Your task to perform on an android device: uninstall "Facebook" Image 0: 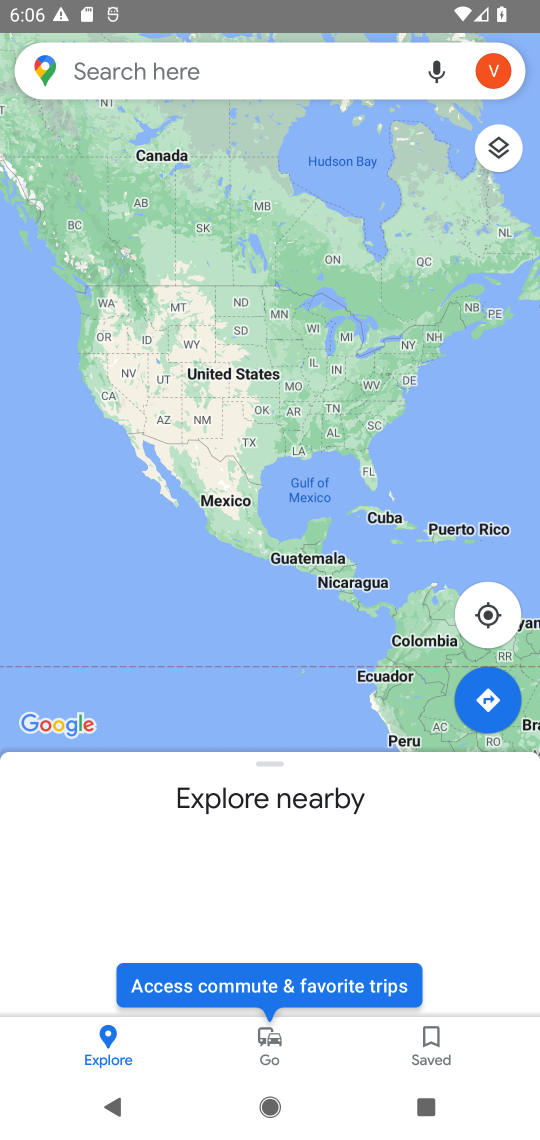
Step 0: press home button
Your task to perform on an android device: uninstall "Facebook" Image 1: 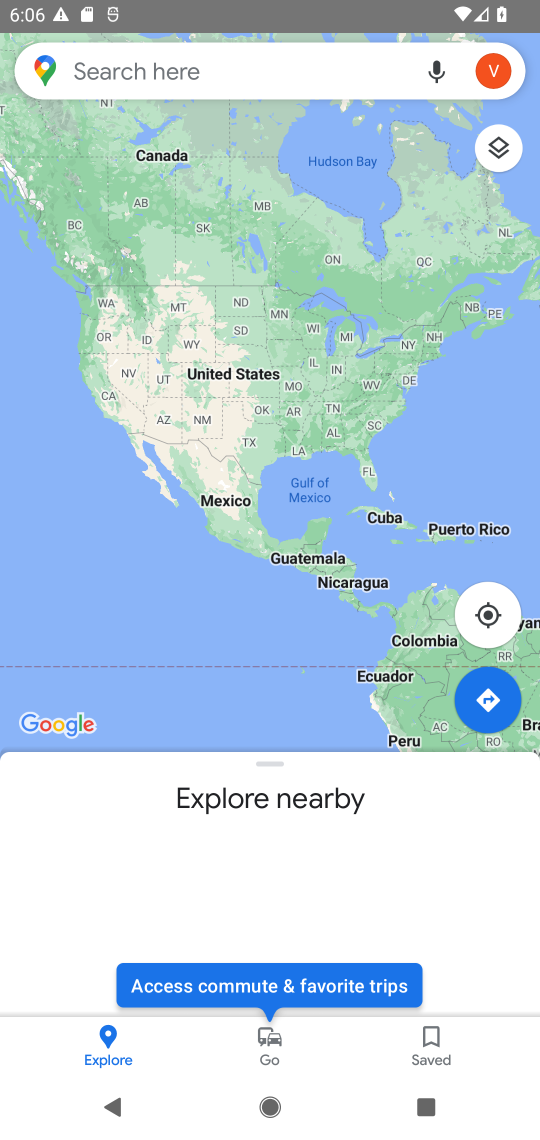
Step 1: press home button
Your task to perform on an android device: uninstall "Facebook" Image 2: 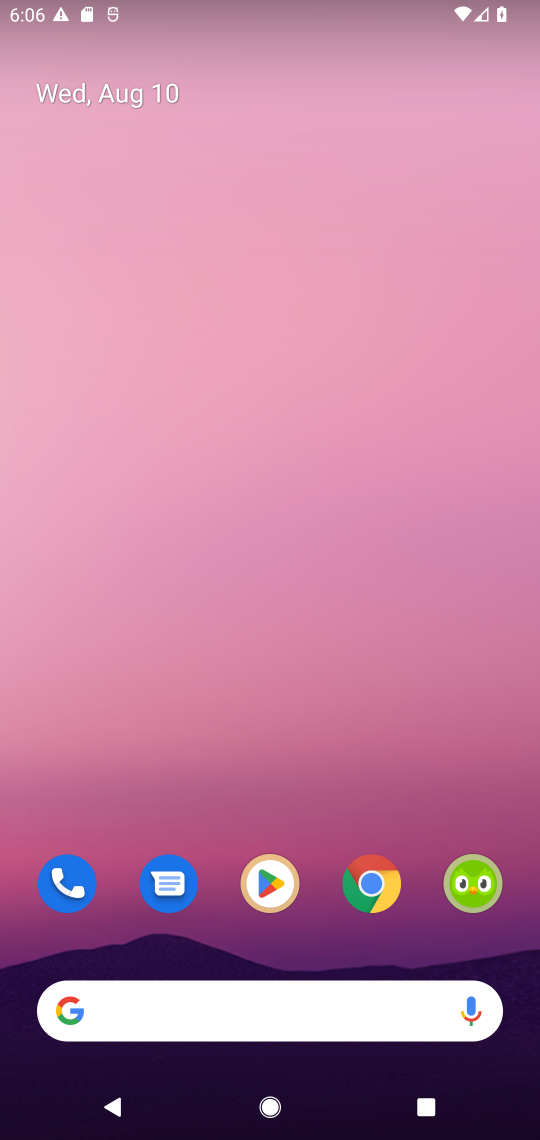
Step 2: drag from (330, 875) to (305, 168)
Your task to perform on an android device: uninstall "Facebook" Image 3: 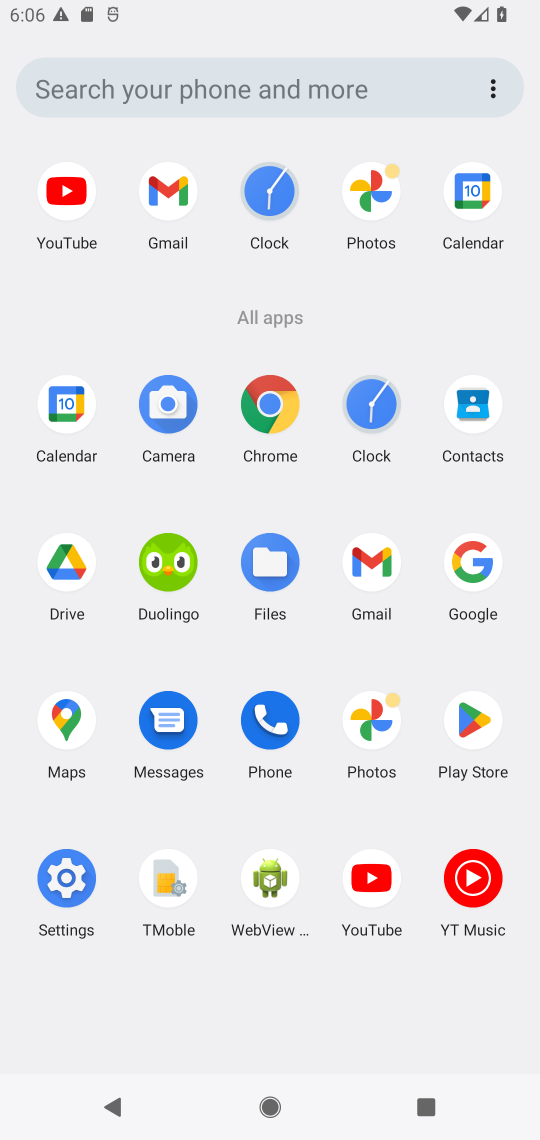
Step 3: click (478, 718)
Your task to perform on an android device: uninstall "Facebook" Image 4: 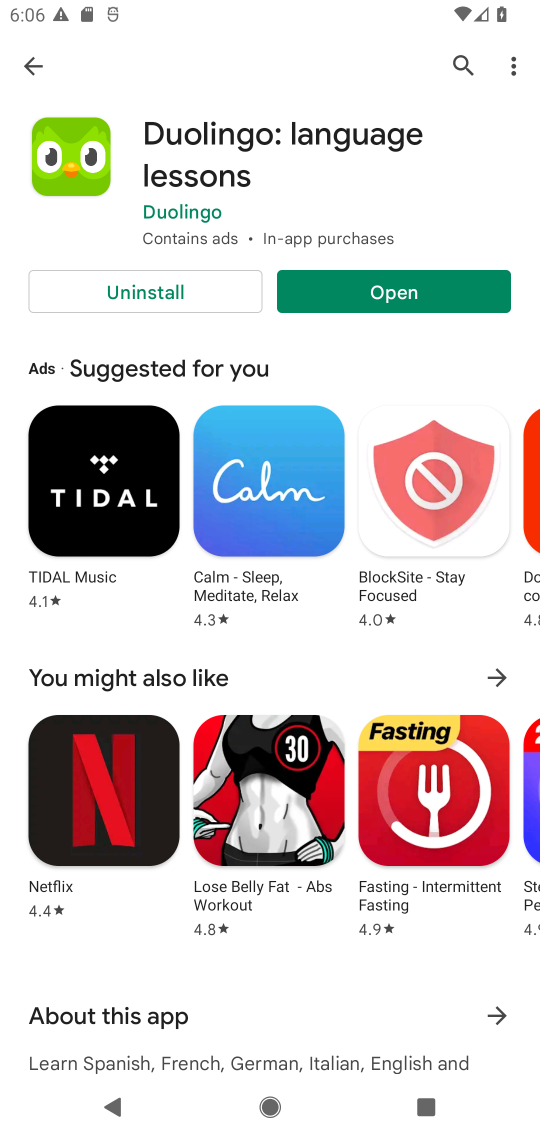
Step 4: click (461, 57)
Your task to perform on an android device: uninstall "Facebook" Image 5: 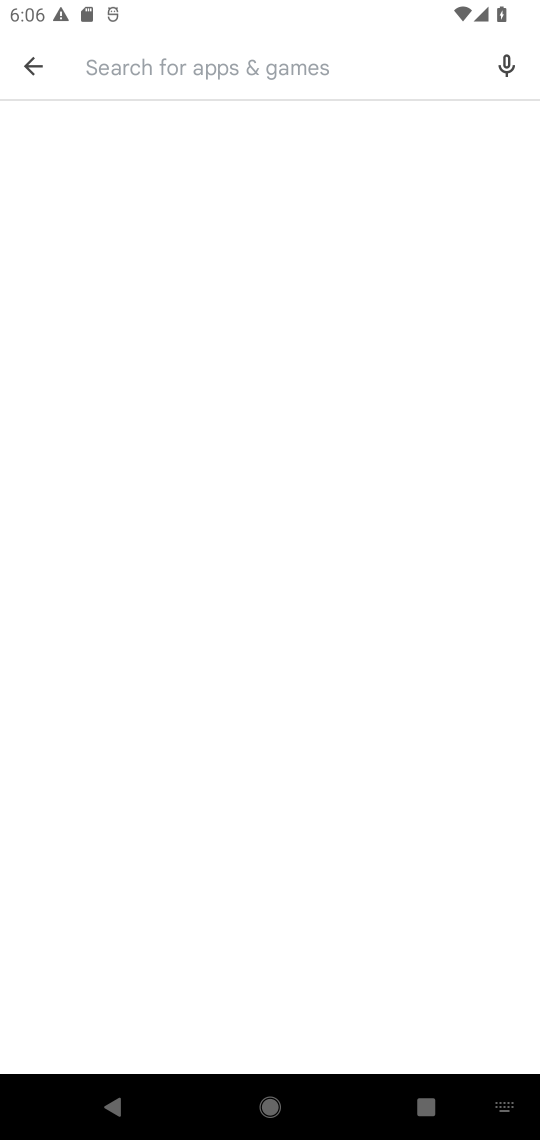
Step 5: type "Facebook"
Your task to perform on an android device: uninstall "Facebook" Image 6: 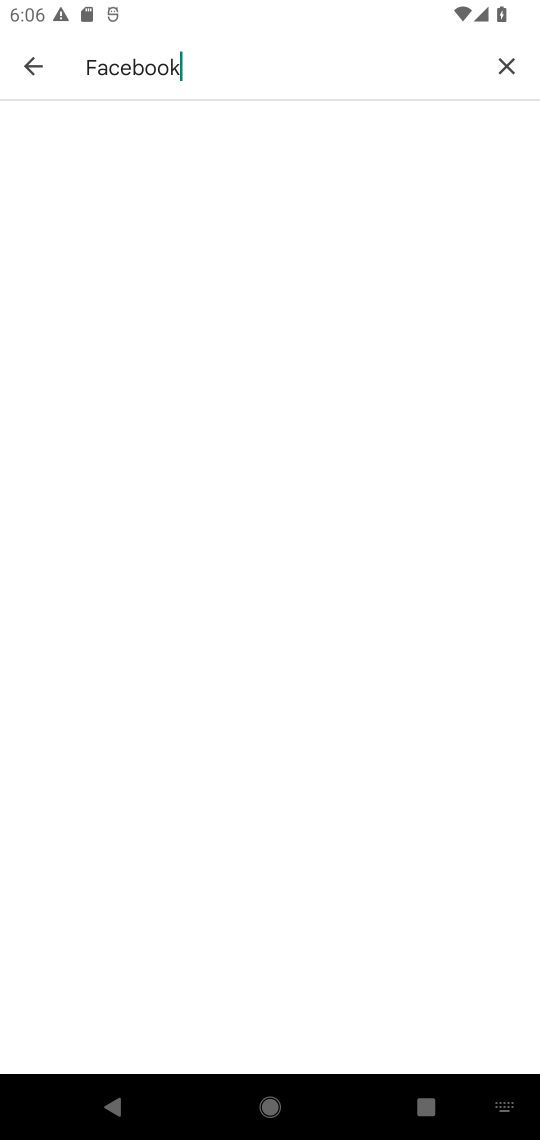
Step 6: type ""
Your task to perform on an android device: uninstall "Facebook" Image 7: 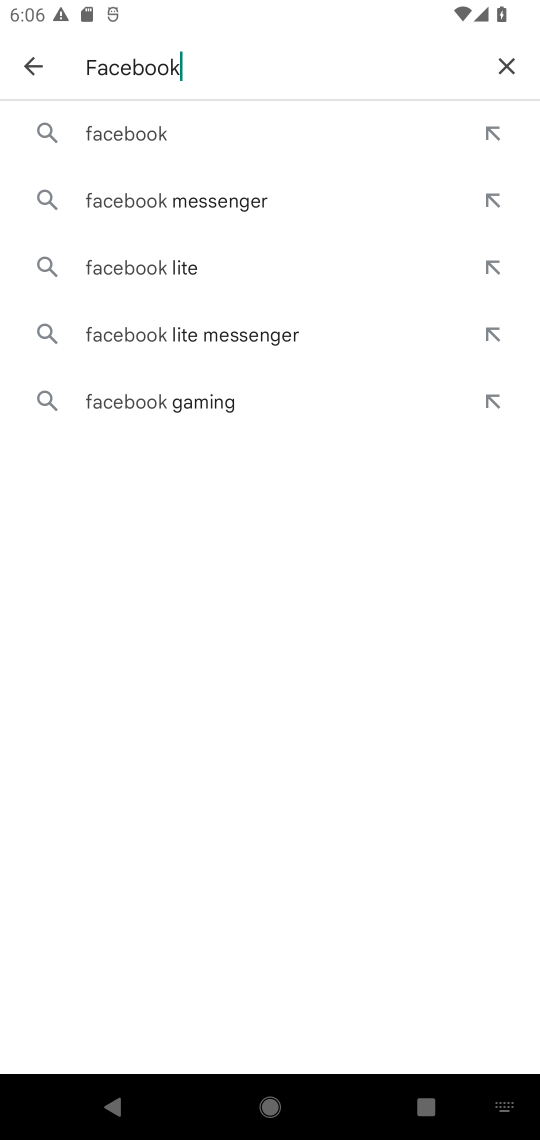
Step 7: click (141, 136)
Your task to perform on an android device: uninstall "Facebook" Image 8: 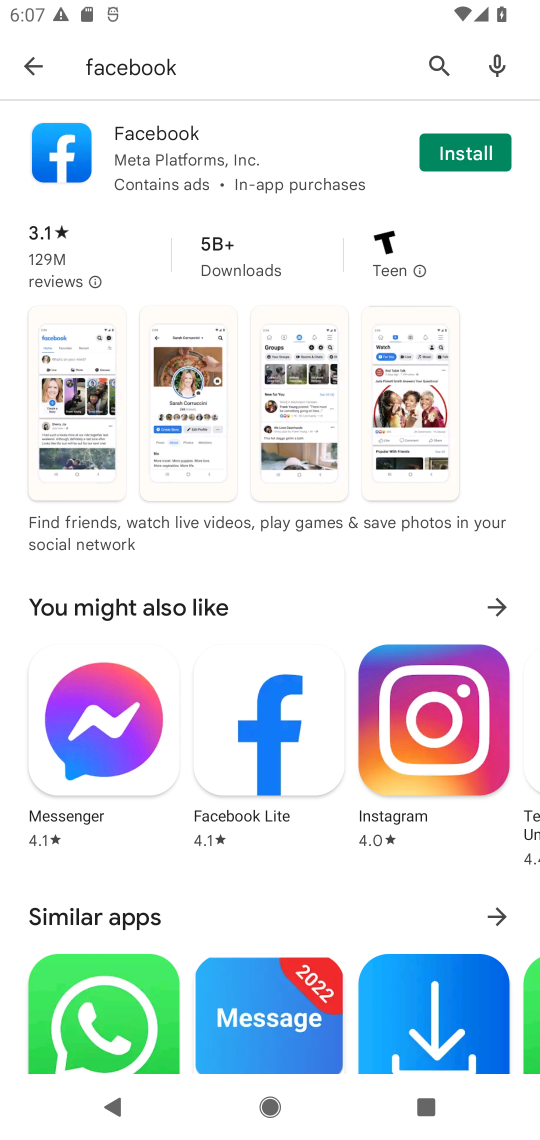
Step 8: click (148, 152)
Your task to perform on an android device: uninstall "Facebook" Image 9: 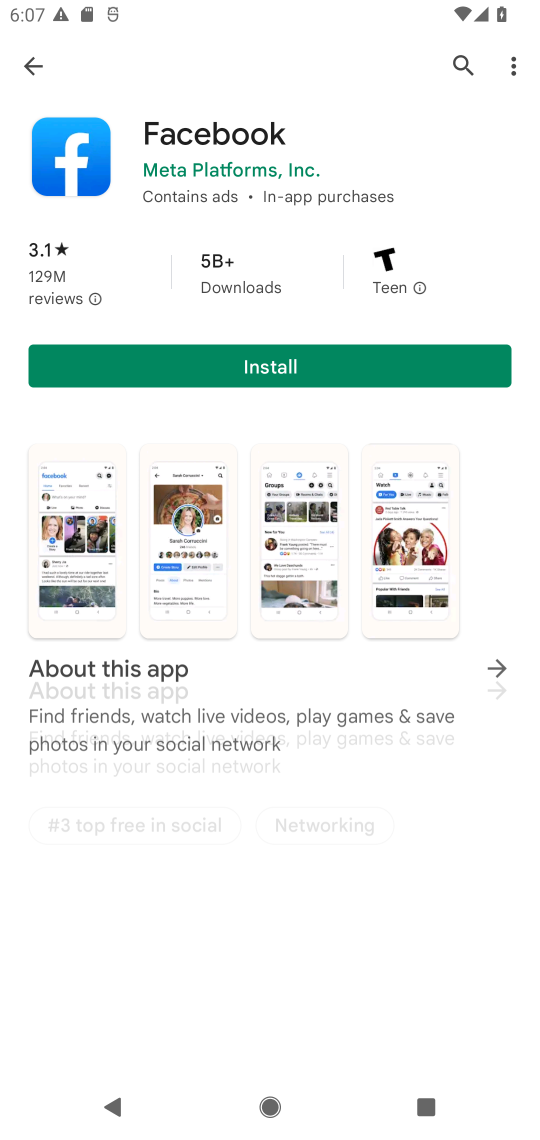
Step 9: task complete